Your task to perform on an android device: Search for Mexican restaurants on Maps Image 0: 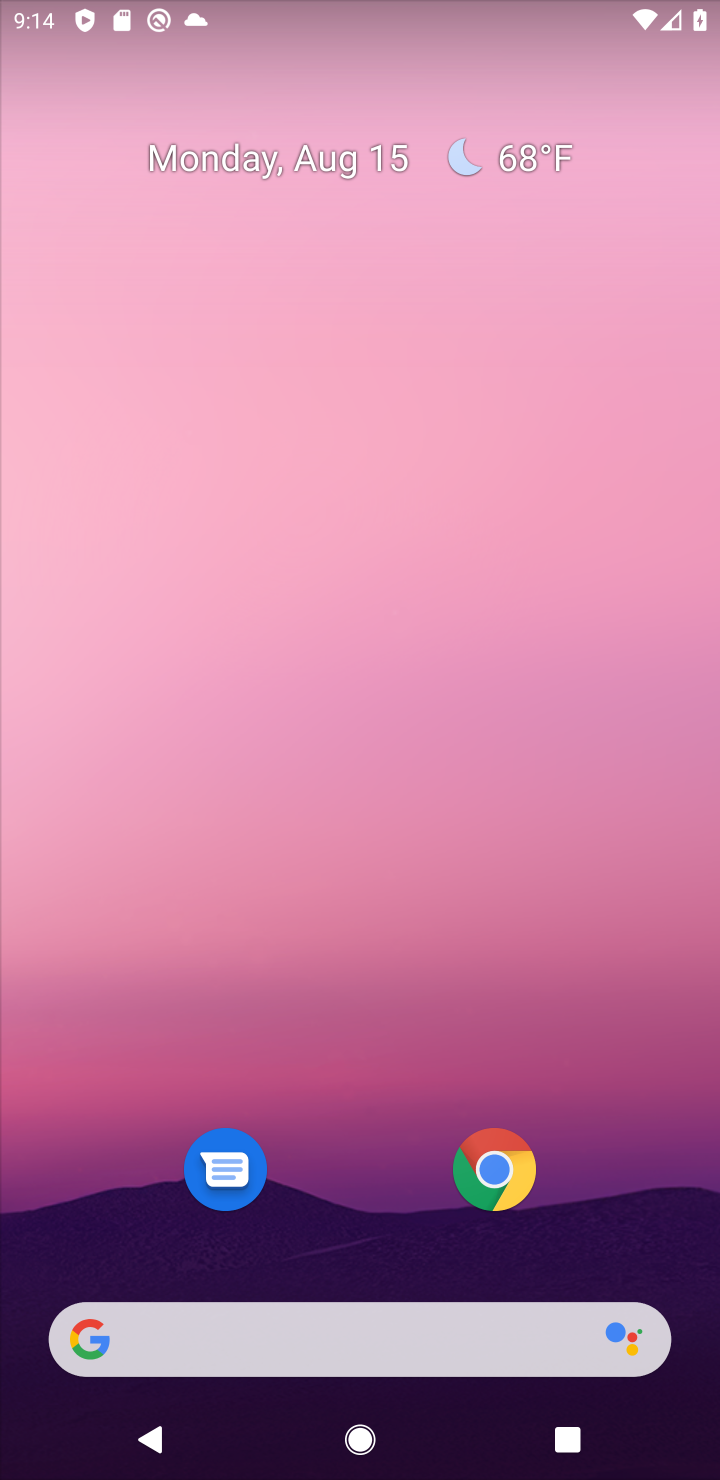
Step 0: drag from (232, 1306) to (340, 249)
Your task to perform on an android device: Search for Mexican restaurants on Maps Image 1: 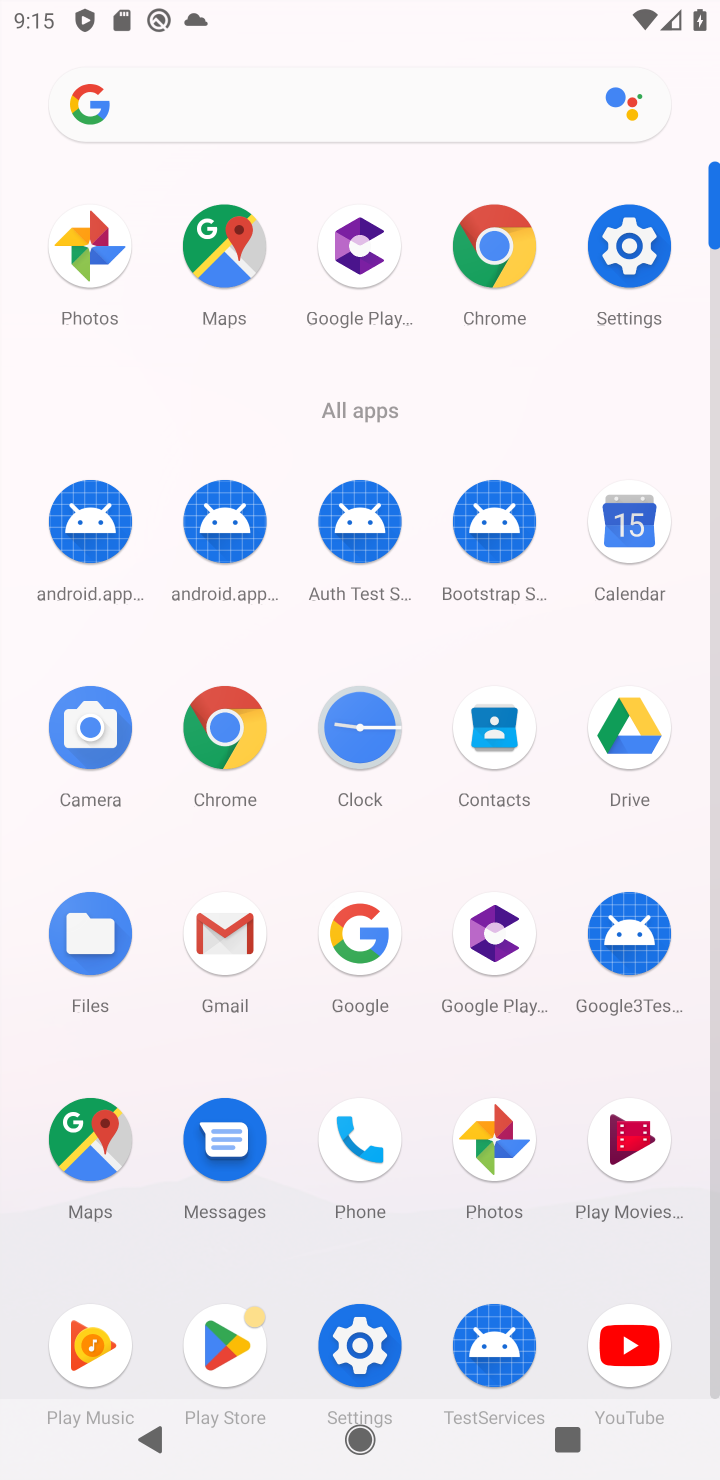
Step 1: click (220, 252)
Your task to perform on an android device: Search for Mexican restaurants on Maps Image 2: 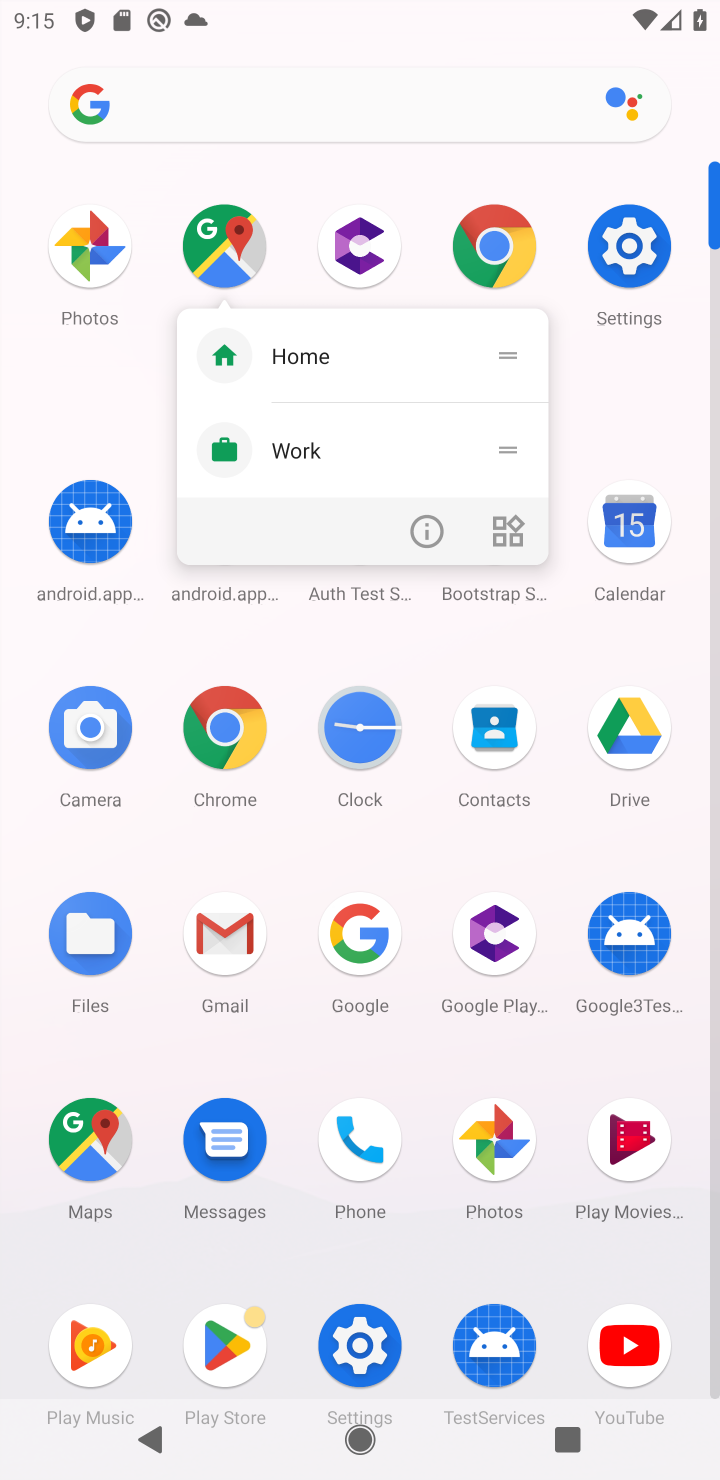
Step 2: click (220, 256)
Your task to perform on an android device: Search for Mexican restaurants on Maps Image 3: 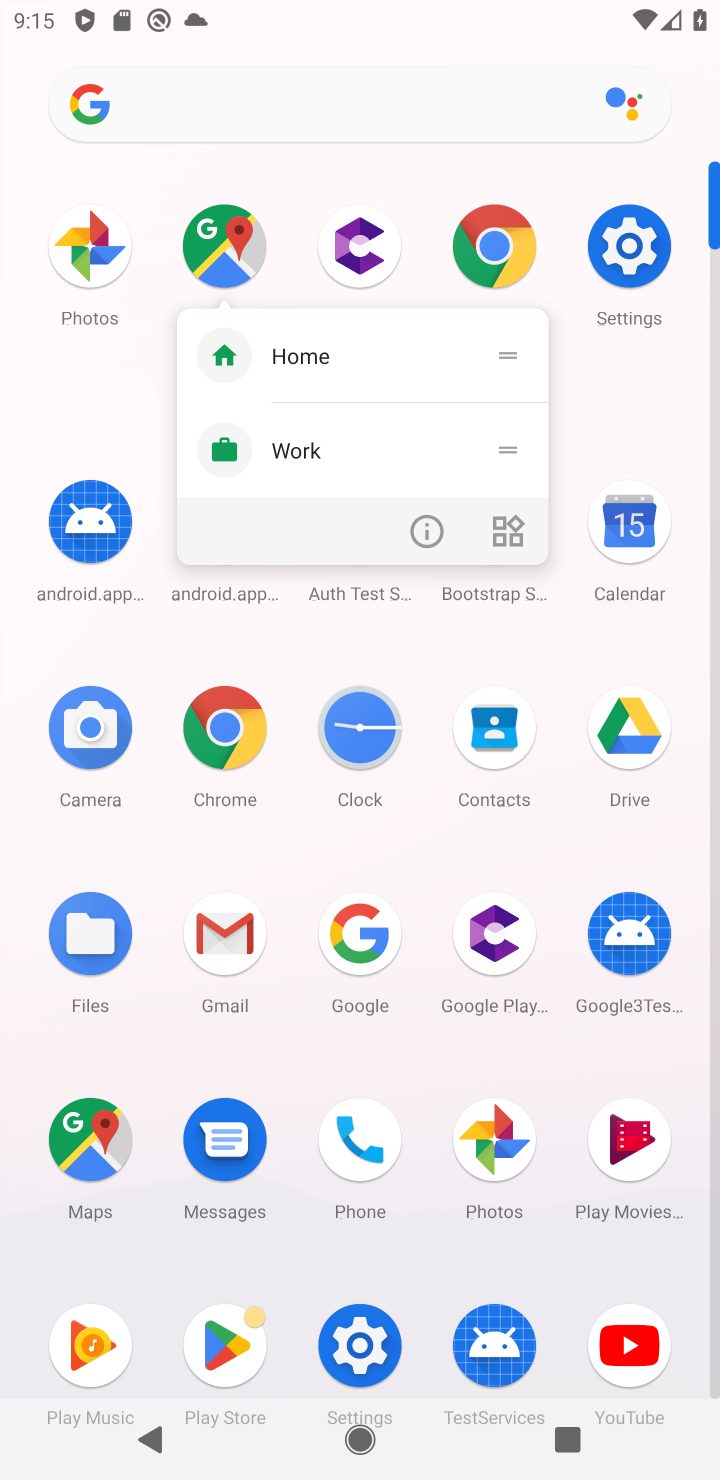
Step 3: click (220, 254)
Your task to perform on an android device: Search for Mexican restaurants on Maps Image 4: 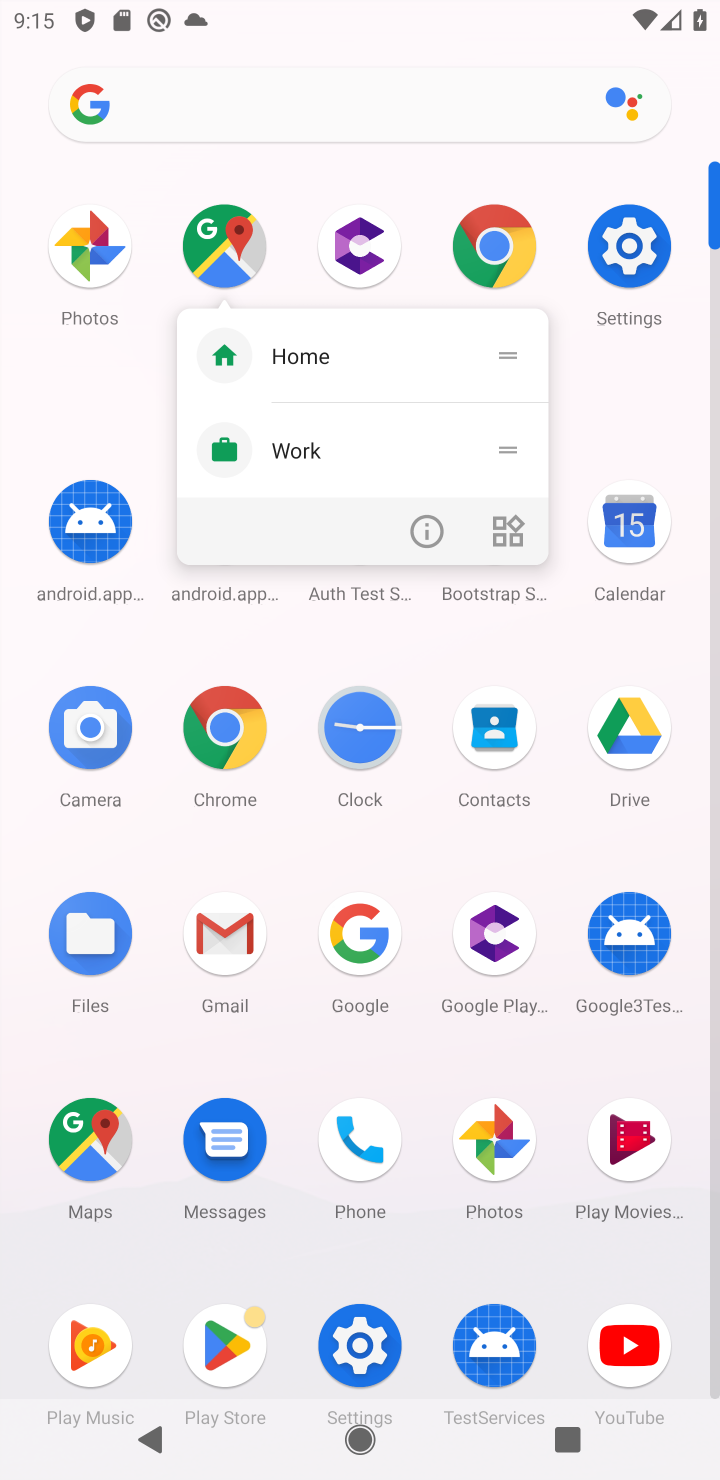
Step 4: click (219, 242)
Your task to perform on an android device: Search for Mexican restaurants on Maps Image 5: 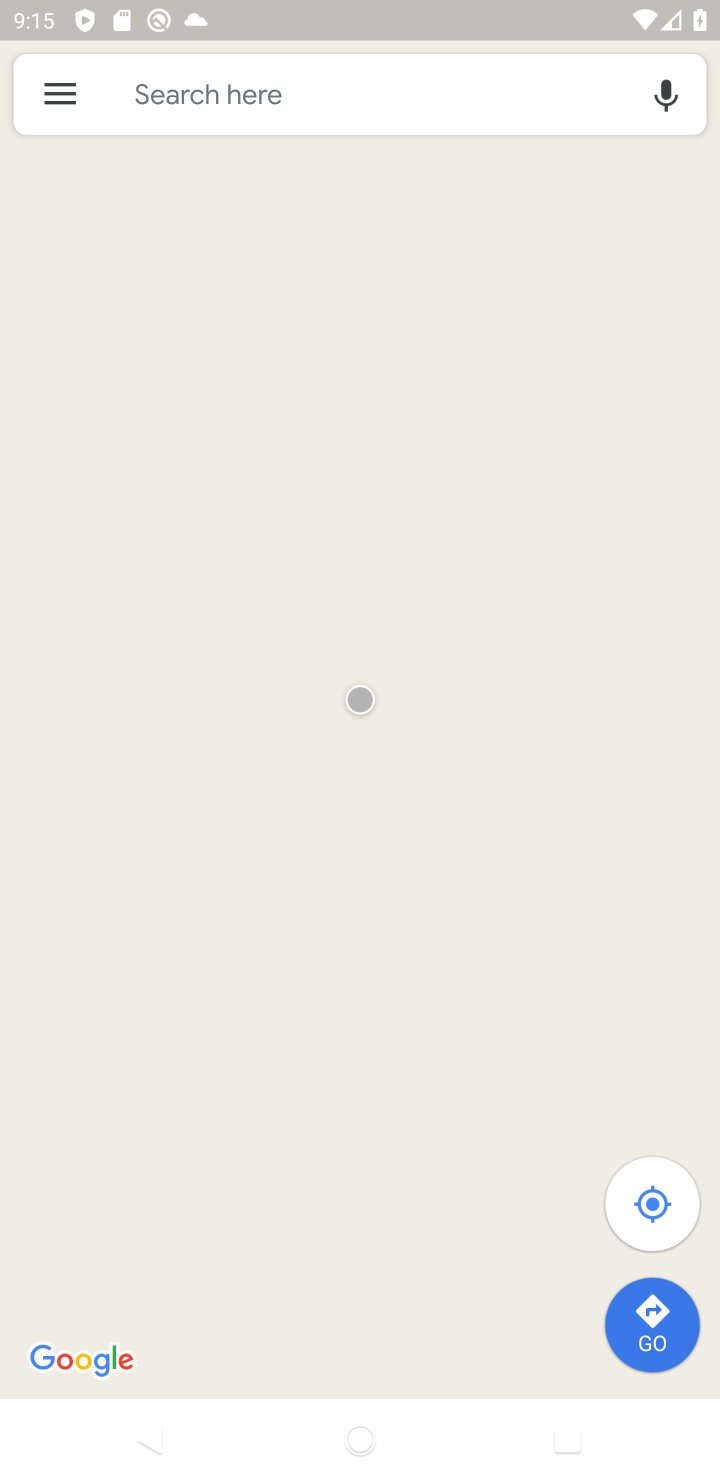
Step 5: click (238, 101)
Your task to perform on an android device: Search for Mexican restaurants on Maps Image 6: 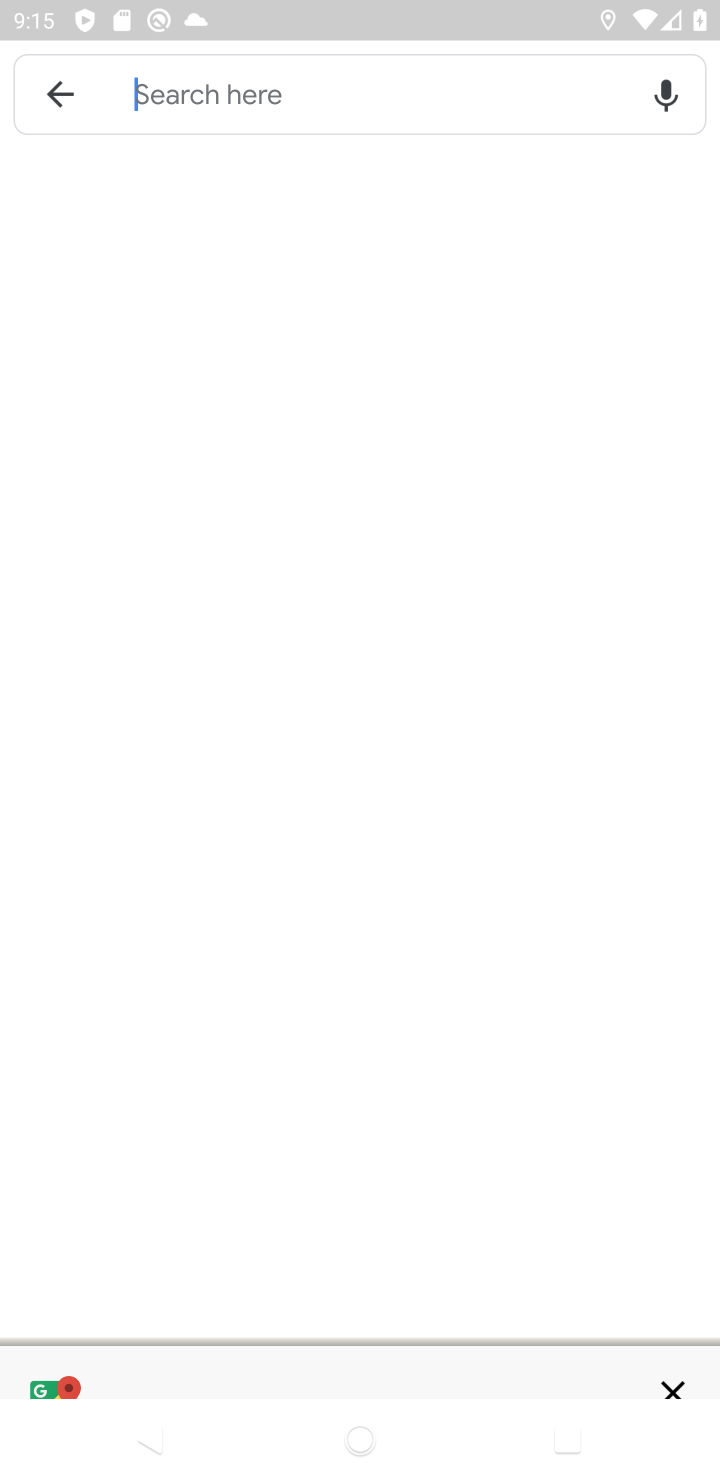
Step 6: click (231, 89)
Your task to perform on an android device: Search for Mexican restaurants on Maps Image 7: 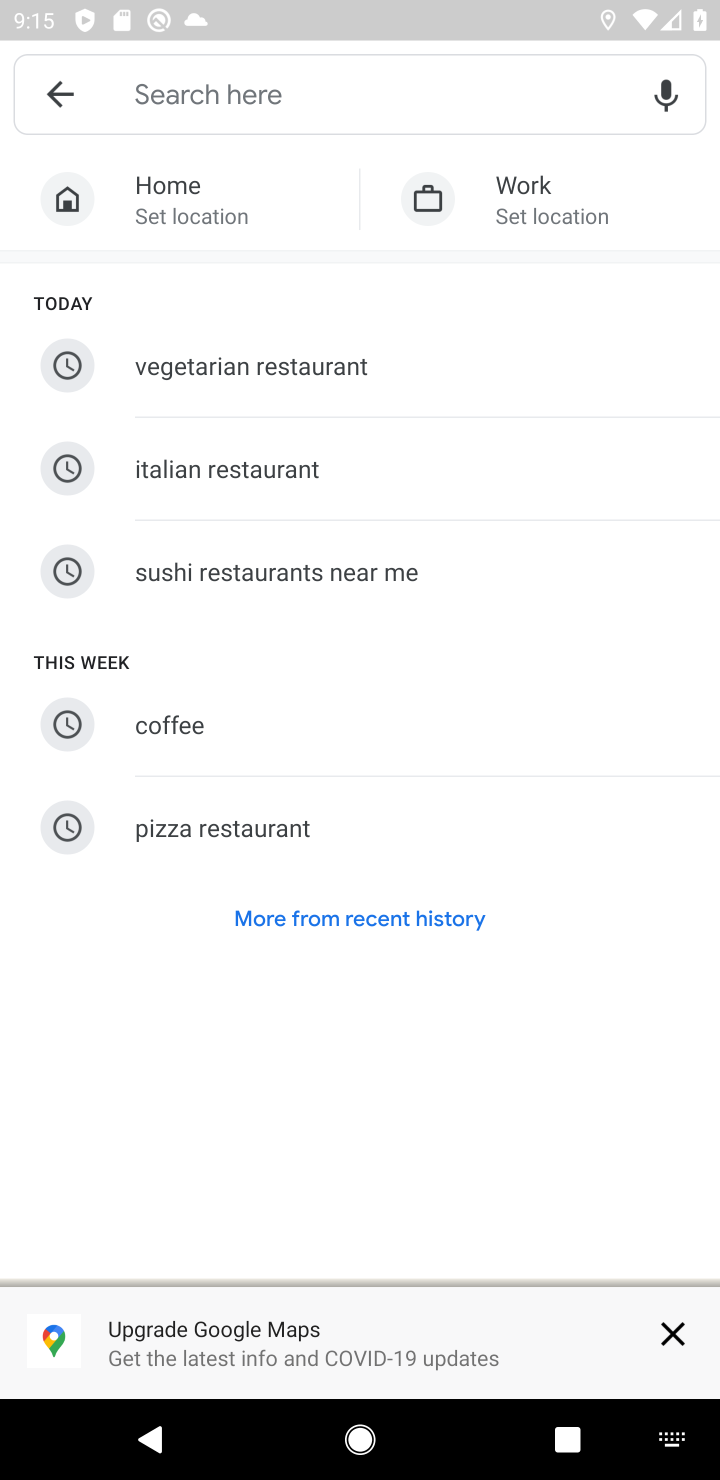
Step 7: type "Mexican restaurants"
Your task to perform on an android device: Search for Mexican restaurants on Maps Image 8: 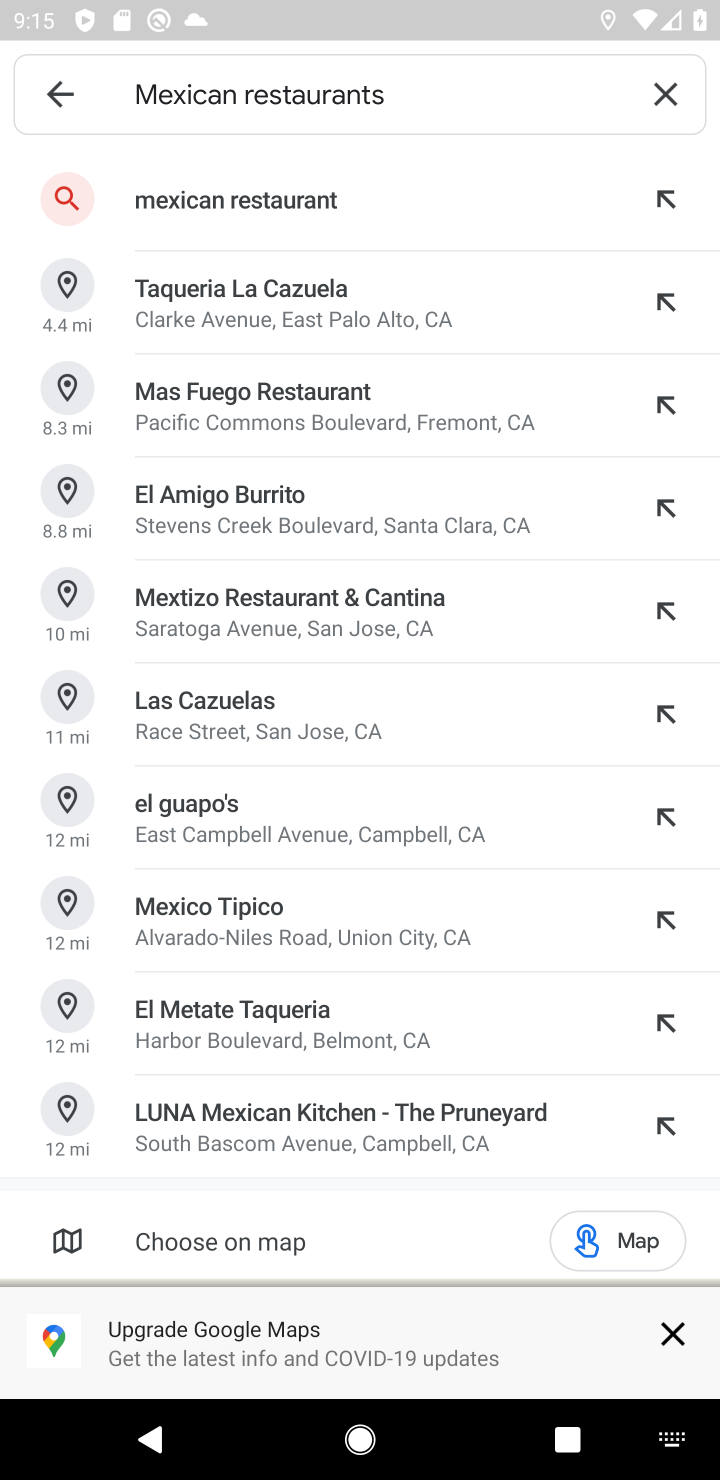
Step 8: click (289, 207)
Your task to perform on an android device: Search for Mexican restaurants on Maps Image 9: 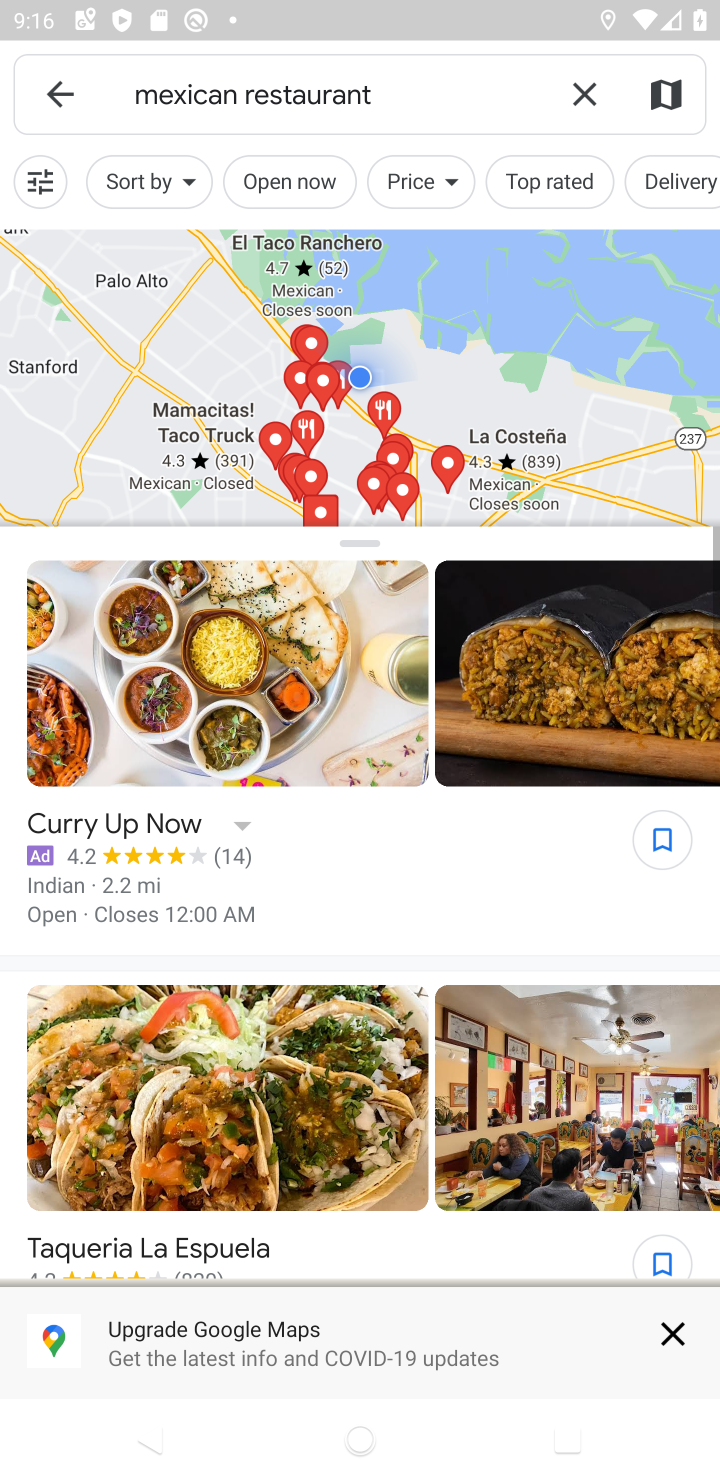
Step 9: task complete